Your task to perform on an android device: change text size in settings app Image 0: 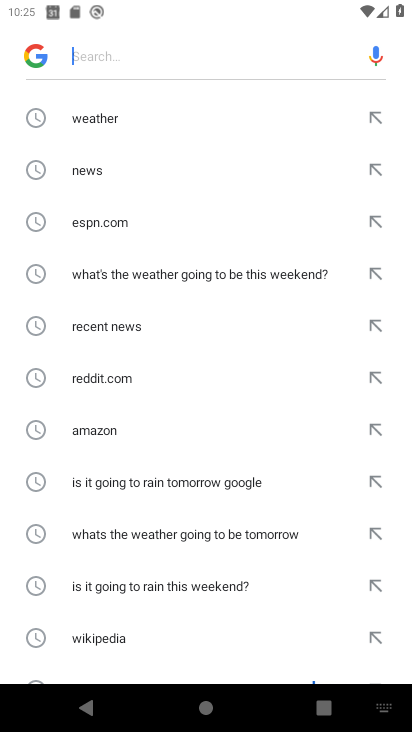
Step 0: press home button
Your task to perform on an android device: change text size in settings app Image 1: 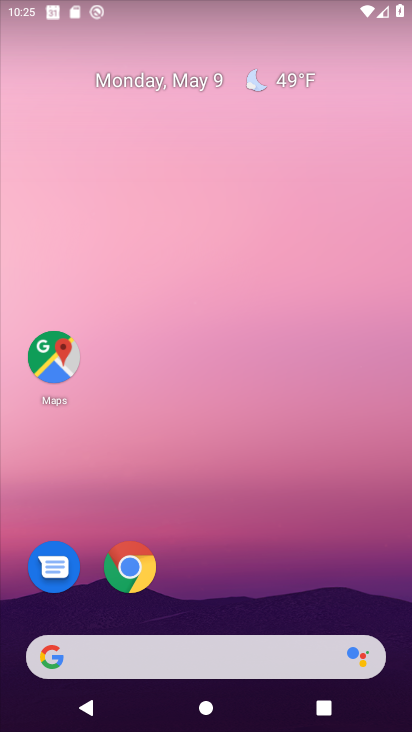
Step 1: drag from (152, 626) to (122, 262)
Your task to perform on an android device: change text size in settings app Image 2: 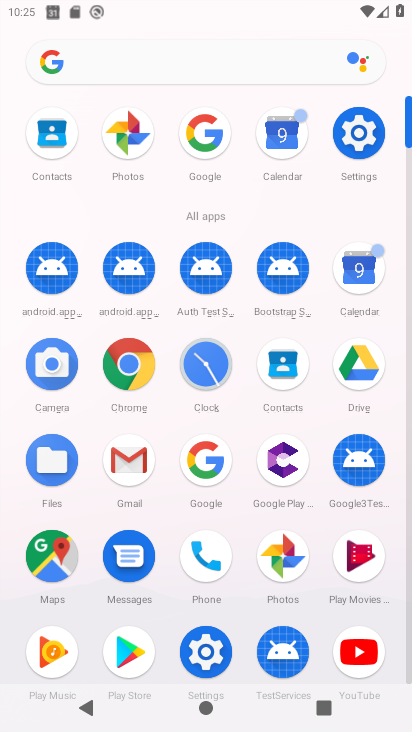
Step 2: click (210, 662)
Your task to perform on an android device: change text size in settings app Image 3: 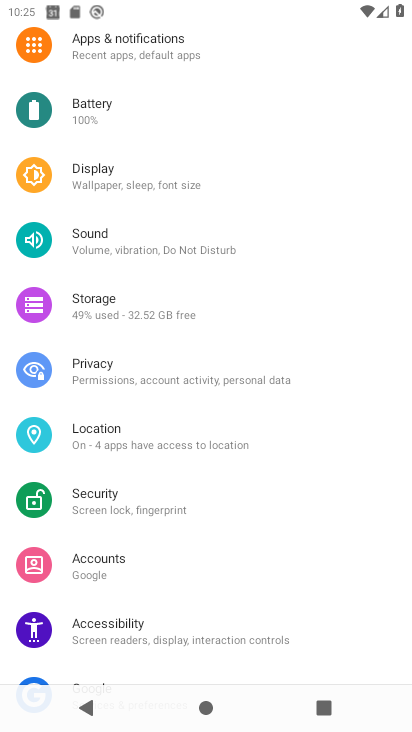
Step 3: click (135, 638)
Your task to perform on an android device: change text size in settings app Image 4: 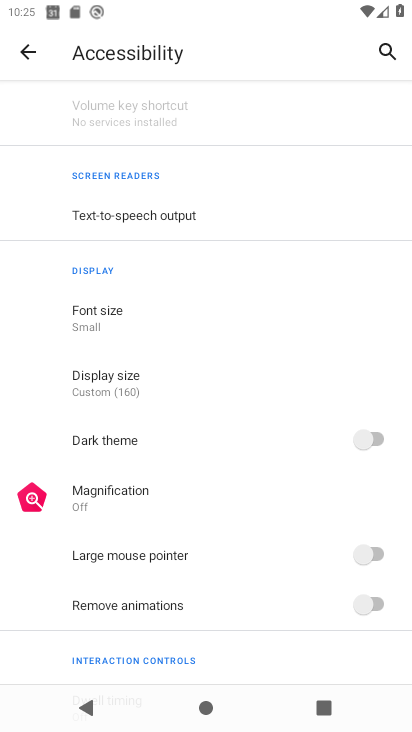
Step 4: click (105, 318)
Your task to perform on an android device: change text size in settings app Image 5: 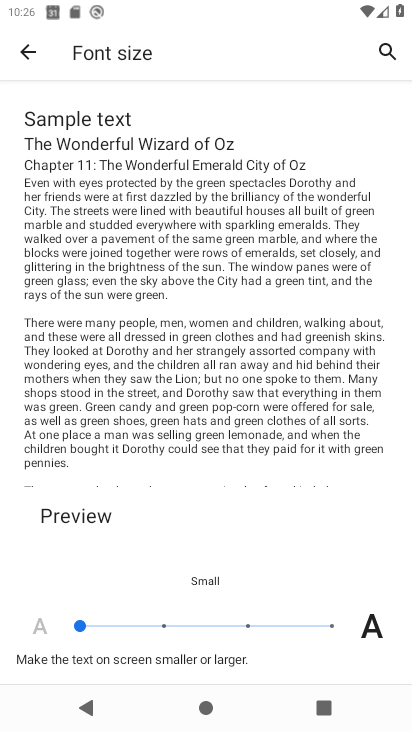
Step 5: click (163, 625)
Your task to perform on an android device: change text size in settings app Image 6: 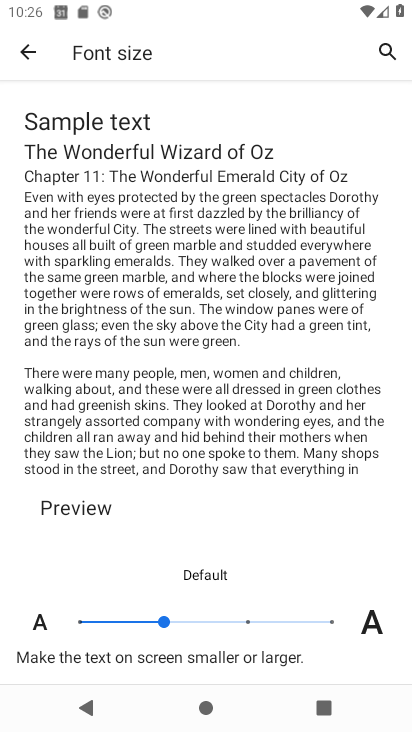
Step 6: task complete